Your task to perform on an android device: Open Youtube and go to the subscriptions tab Image 0: 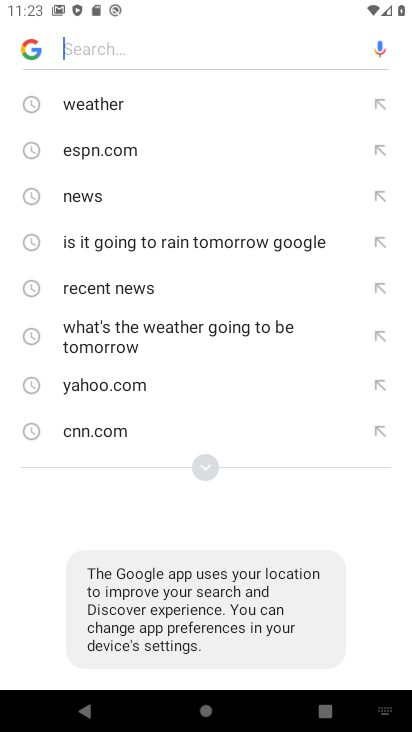
Step 0: press home button
Your task to perform on an android device: Open Youtube and go to the subscriptions tab Image 1: 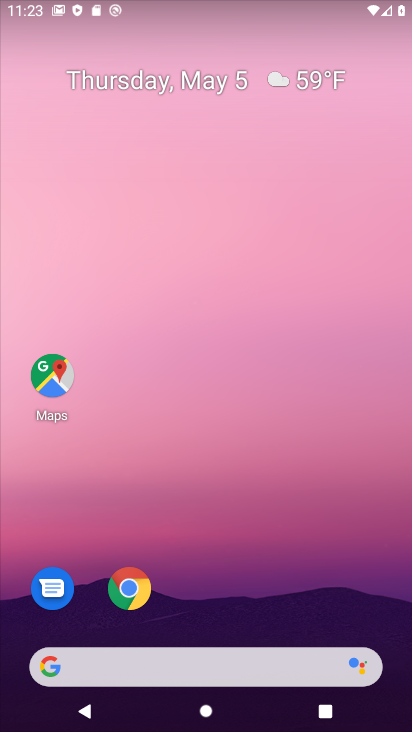
Step 1: drag from (192, 659) to (385, 11)
Your task to perform on an android device: Open Youtube and go to the subscriptions tab Image 2: 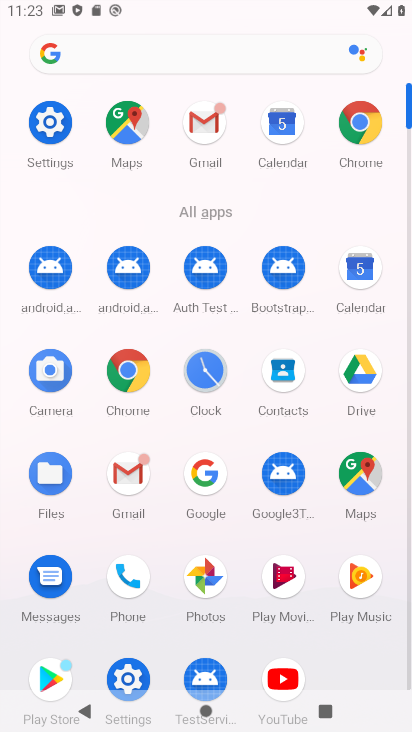
Step 2: click (289, 672)
Your task to perform on an android device: Open Youtube and go to the subscriptions tab Image 3: 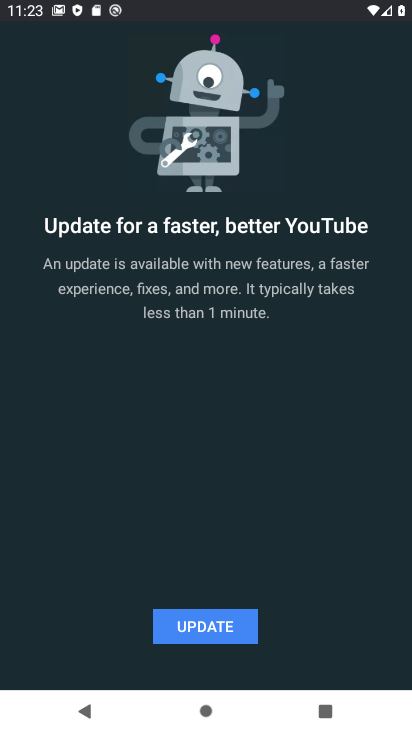
Step 3: click (203, 637)
Your task to perform on an android device: Open Youtube and go to the subscriptions tab Image 4: 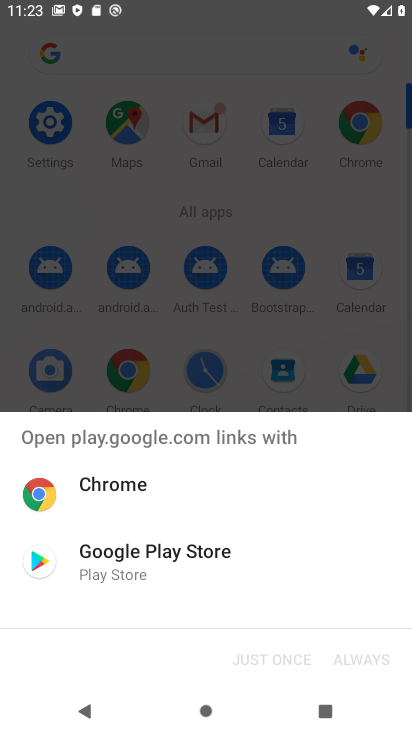
Step 4: click (166, 552)
Your task to perform on an android device: Open Youtube and go to the subscriptions tab Image 5: 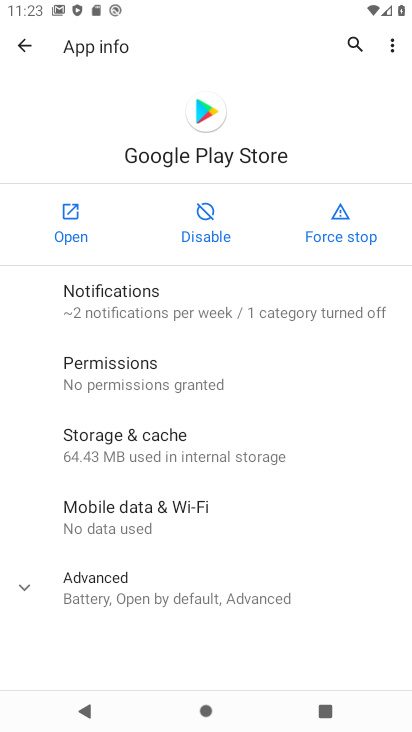
Step 5: task complete